Your task to perform on an android device: Open Google Maps Image 0: 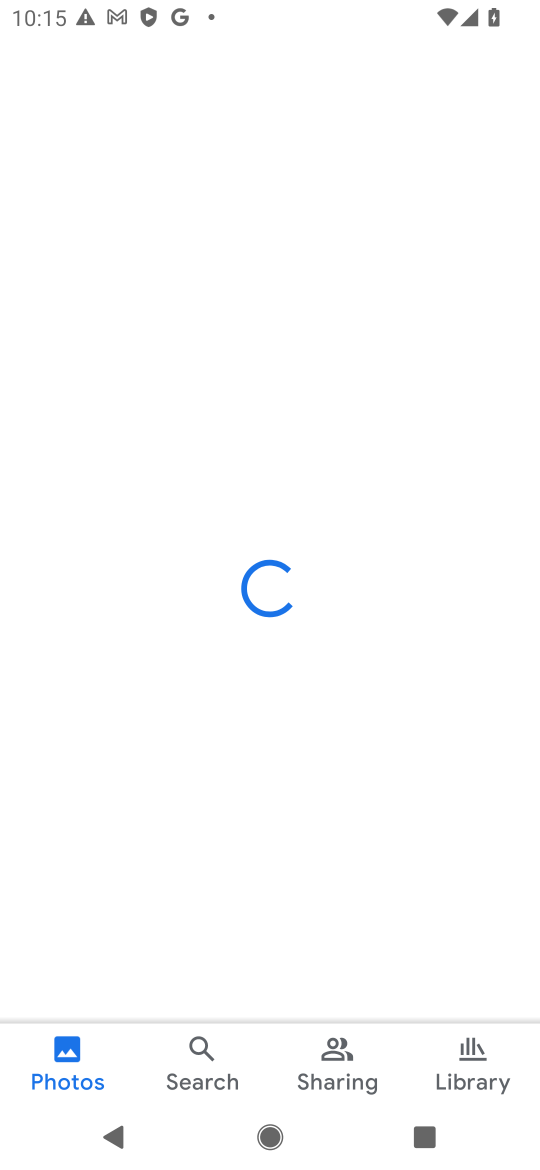
Step 0: press home button
Your task to perform on an android device: Open Google Maps Image 1: 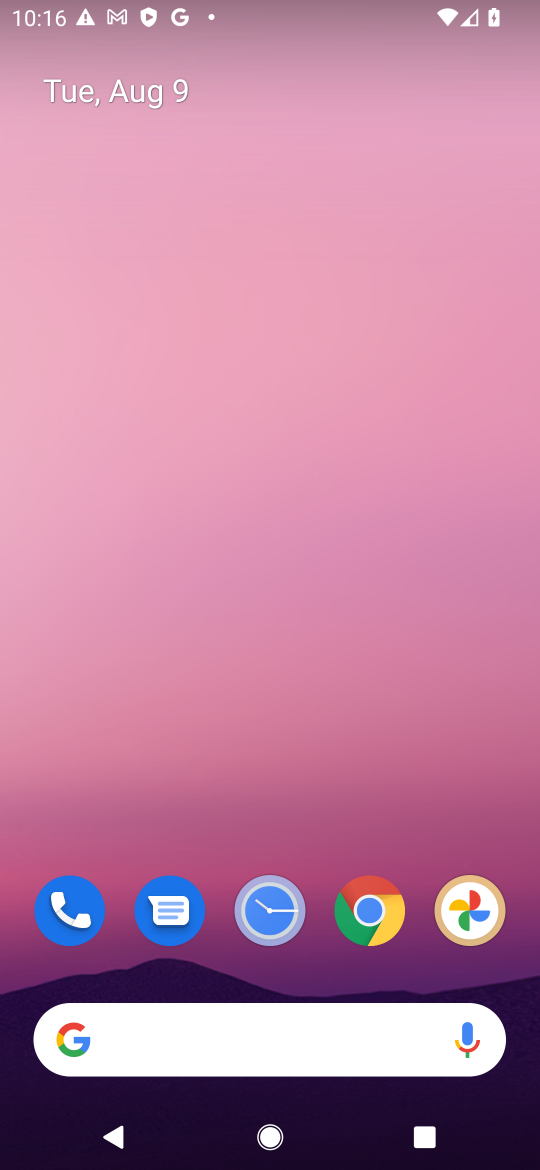
Step 1: drag from (48, 821) to (482, 16)
Your task to perform on an android device: Open Google Maps Image 2: 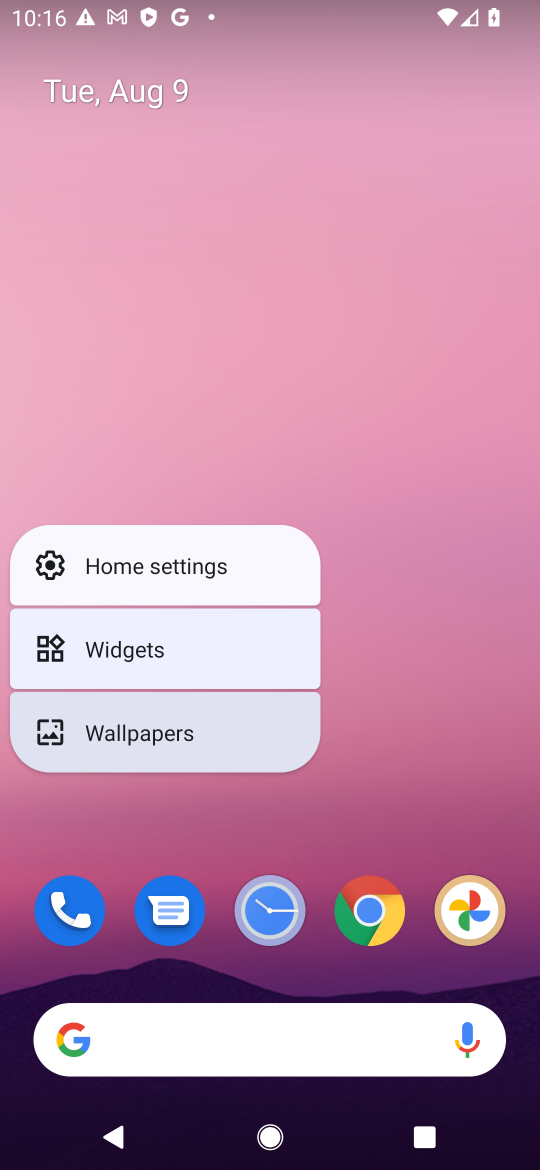
Step 2: click (447, 627)
Your task to perform on an android device: Open Google Maps Image 3: 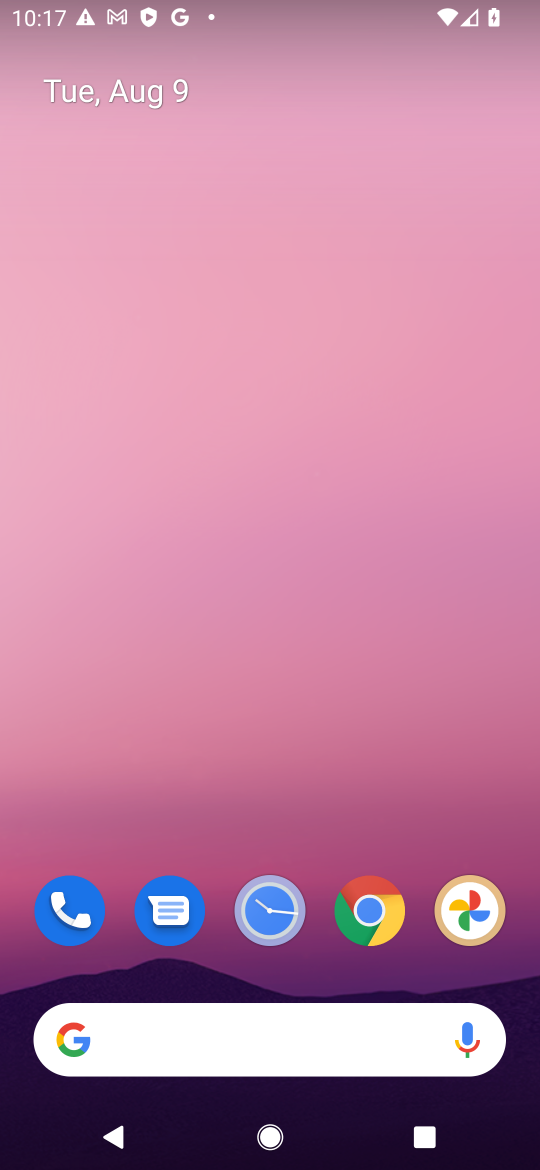
Step 3: drag from (153, 737) to (398, 55)
Your task to perform on an android device: Open Google Maps Image 4: 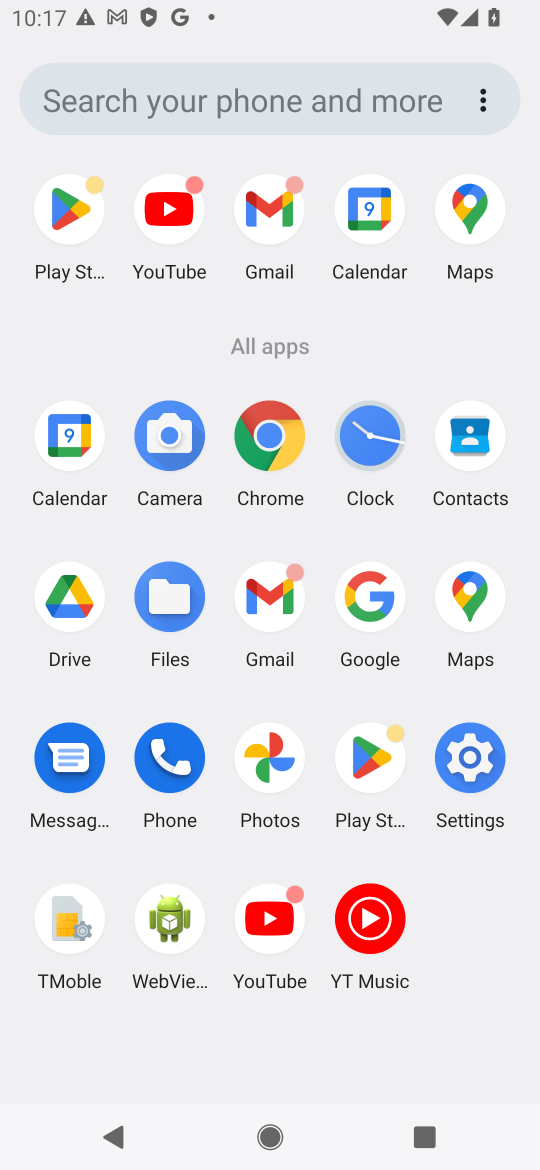
Step 4: click (471, 591)
Your task to perform on an android device: Open Google Maps Image 5: 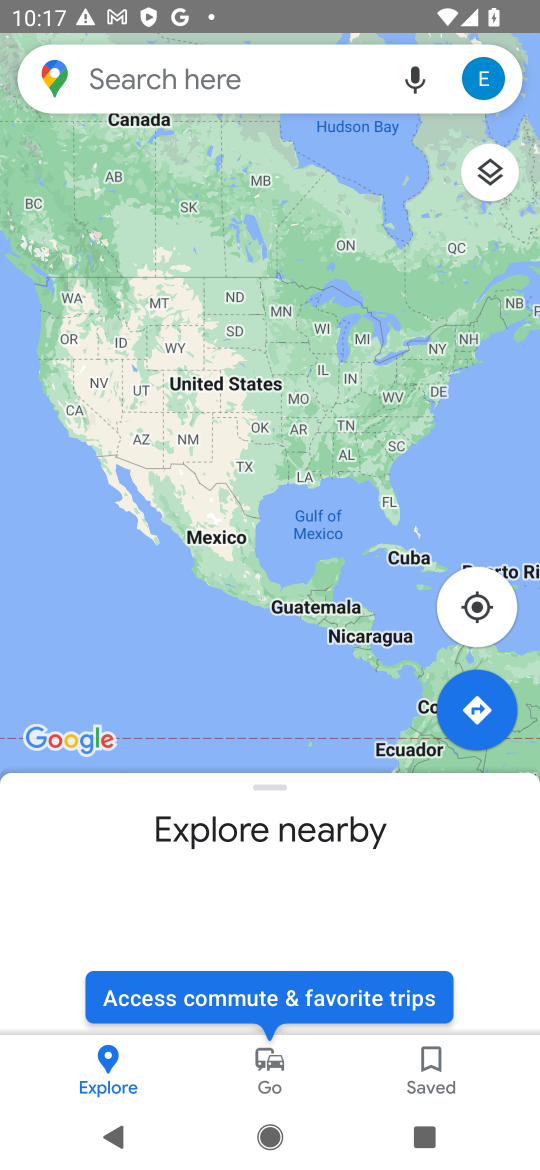
Step 5: task complete